Your task to perform on an android device: move a message to another label in the gmail app Image 0: 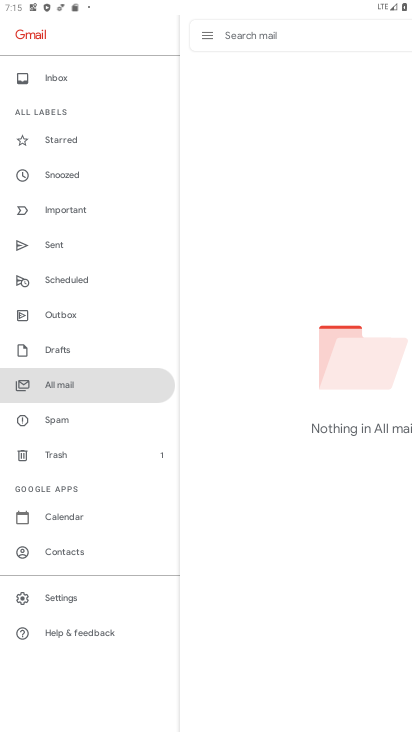
Step 0: press home button
Your task to perform on an android device: move a message to another label in the gmail app Image 1: 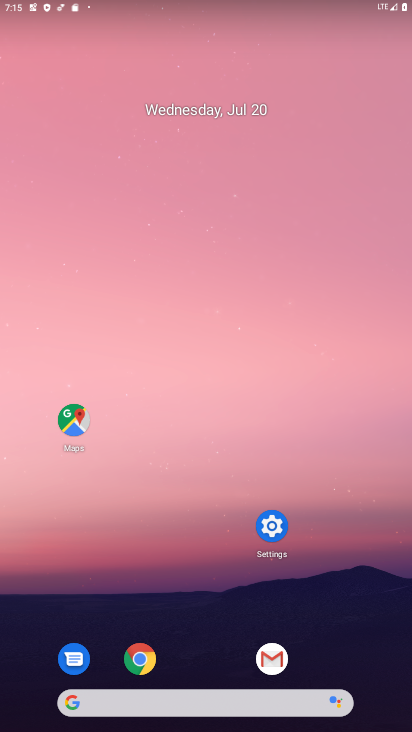
Step 1: click (261, 645)
Your task to perform on an android device: move a message to another label in the gmail app Image 2: 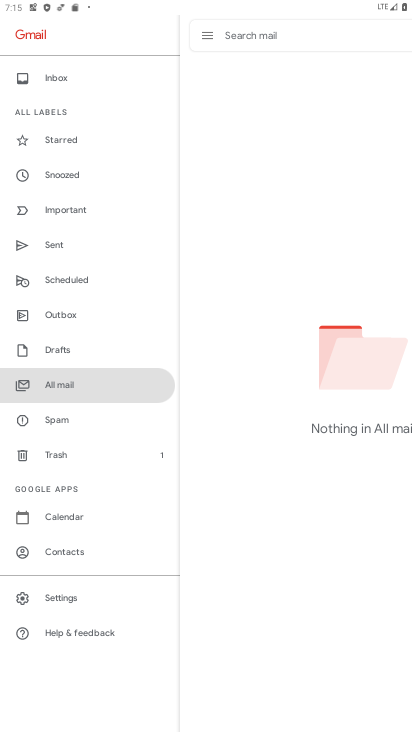
Step 2: click (57, 601)
Your task to perform on an android device: move a message to another label in the gmail app Image 3: 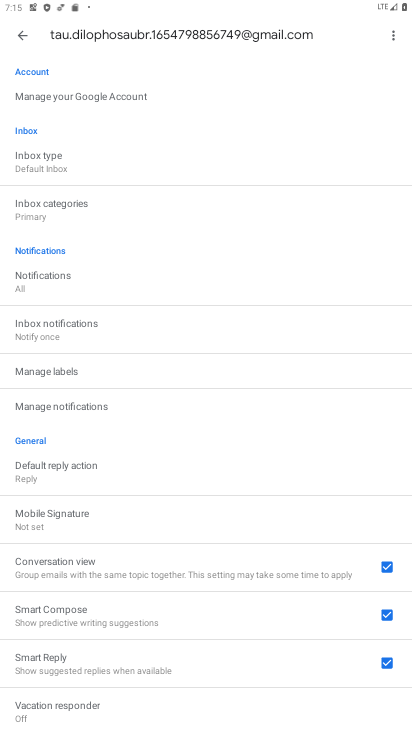
Step 3: click (72, 379)
Your task to perform on an android device: move a message to another label in the gmail app Image 4: 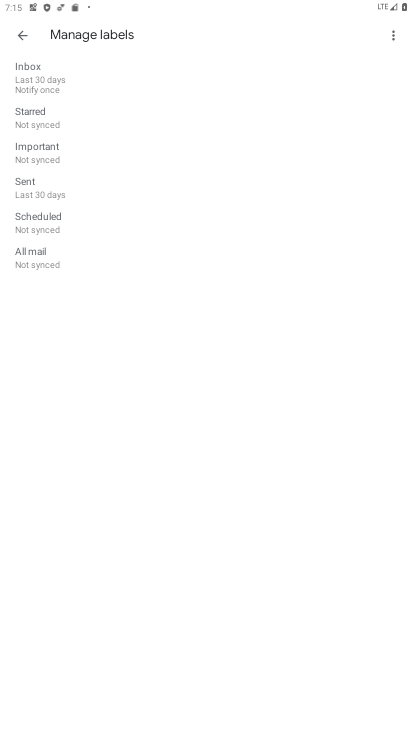
Step 4: click (40, 212)
Your task to perform on an android device: move a message to another label in the gmail app Image 5: 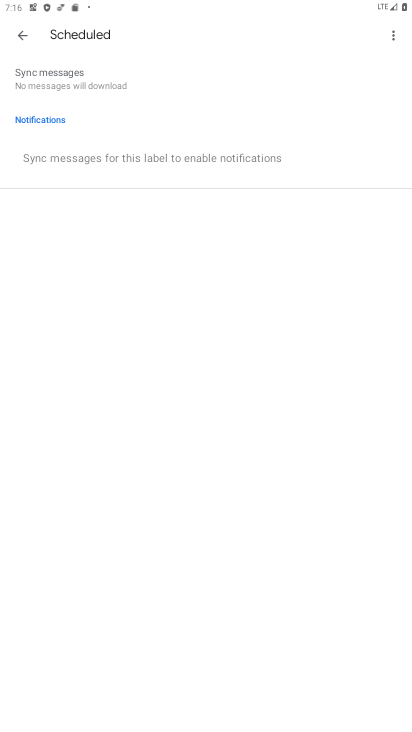
Step 5: task complete